Your task to perform on an android device: toggle data saver in the chrome app Image 0: 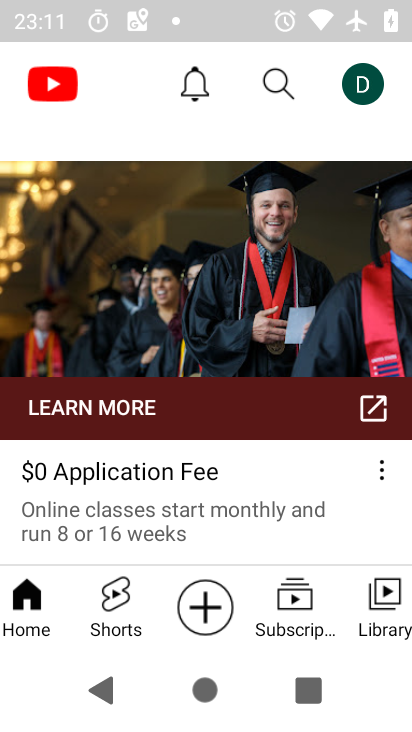
Step 0: press home button
Your task to perform on an android device: toggle data saver in the chrome app Image 1: 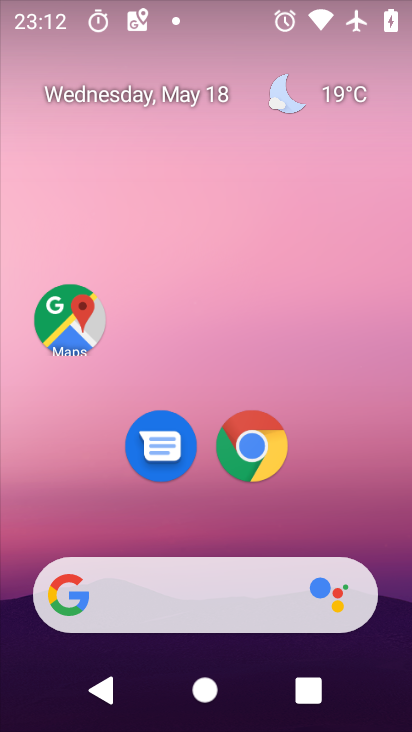
Step 1: click (269, 461)
Your task to perform on an android device: toggle data saver in the chrome app Image 2: 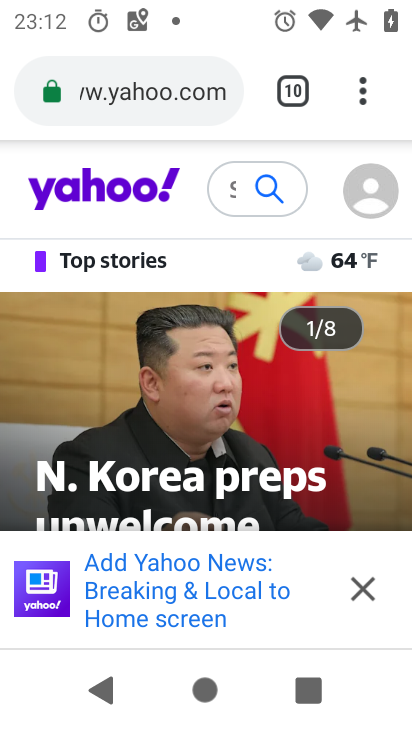
Step 2: click (361, 96)
Your task to perform on an android device: toggle data saver in the chrome app Image 3: 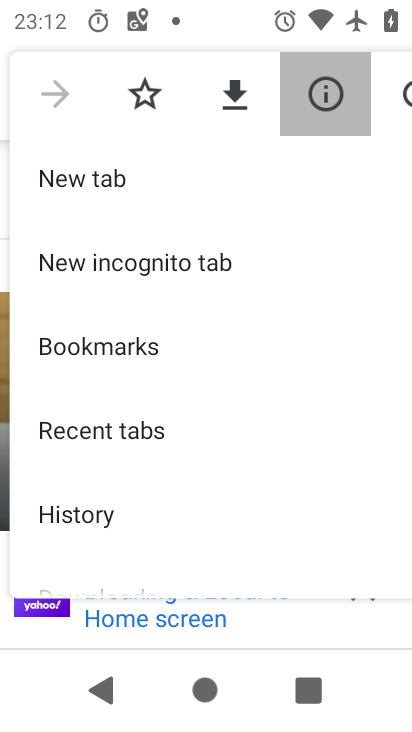
Step 3: click (362, 101)
Your task to perform on an android device: toggle data saver in the chrome app Image 4: 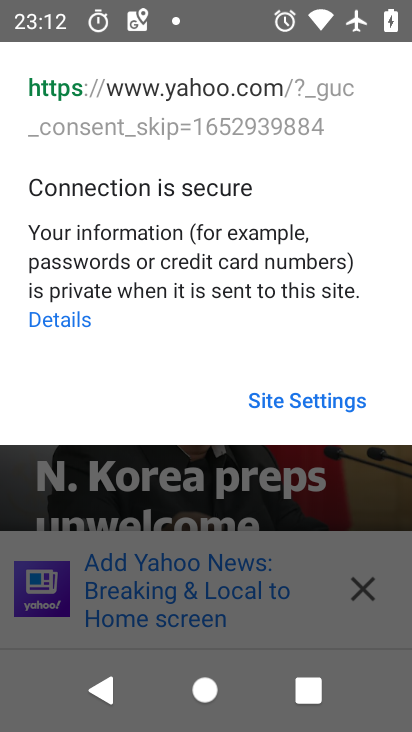
Step 4: click (307, 562)
Your task to perform on an android device: toggle data saver in the chrome app Image 5: 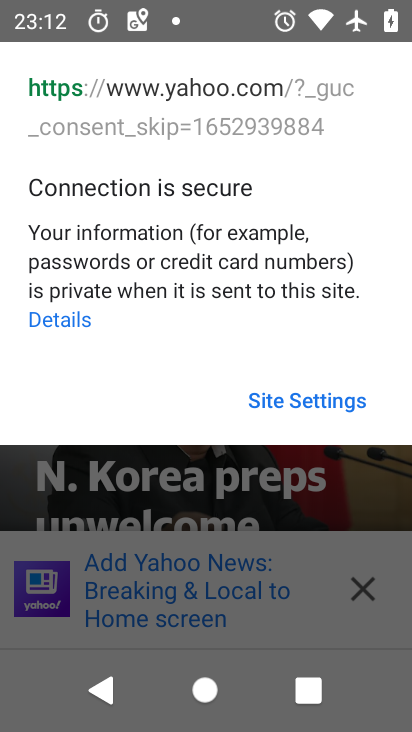
Step 5: drag from (269, 438) to (369, 122)
Your task to perform on an android device: toggle data saver in the chrome app Image 6: 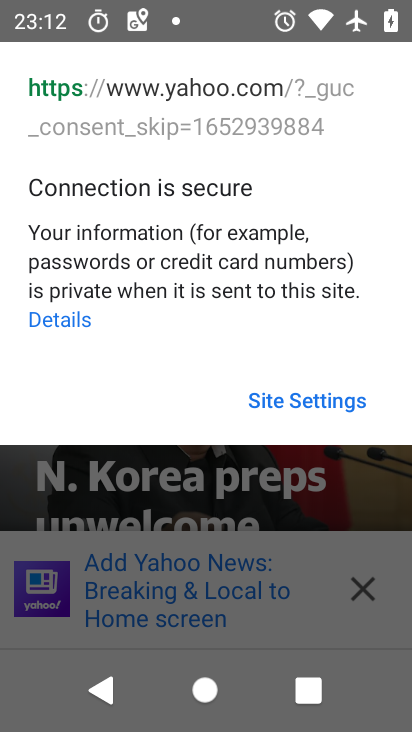
Step 6: press back button
Your task to perform on an android device: toggle data saver in the chrome app Image 7: 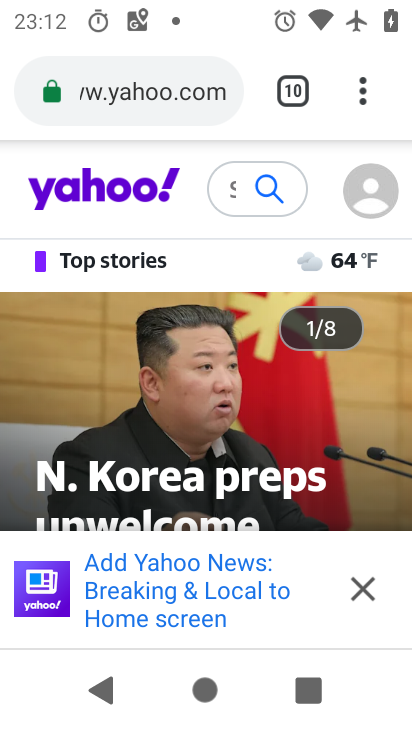
Step 7: drag from (369, 100) to (241, 476)
Your task to perform on an android device: toggle data saver in the chrome app Image 8: 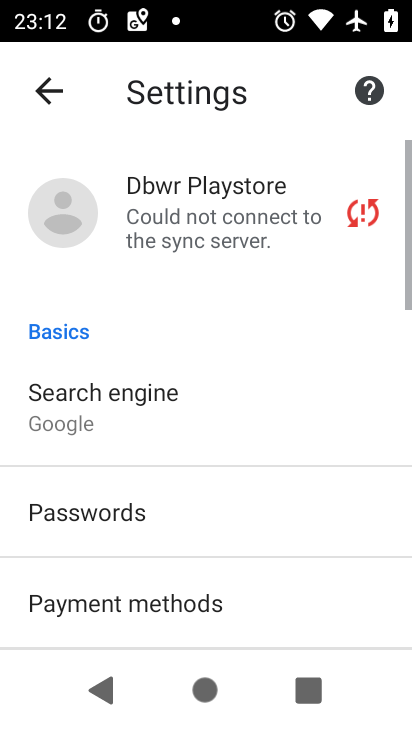
Step 8: drag from (179, 575) to (365, 98)
Your task to perform on an android device: toggle data saver in the chrome app Image 9: 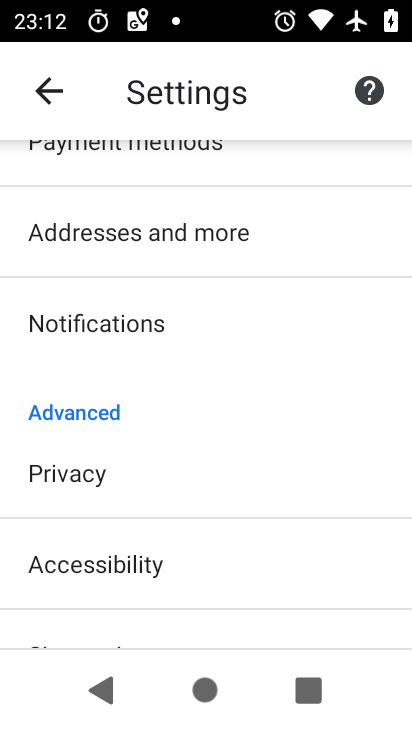
Step 9: drag from (221, 576) to (365, 133)
Your task to perform on an android device: toggle data saver in the chrome app Image 10: 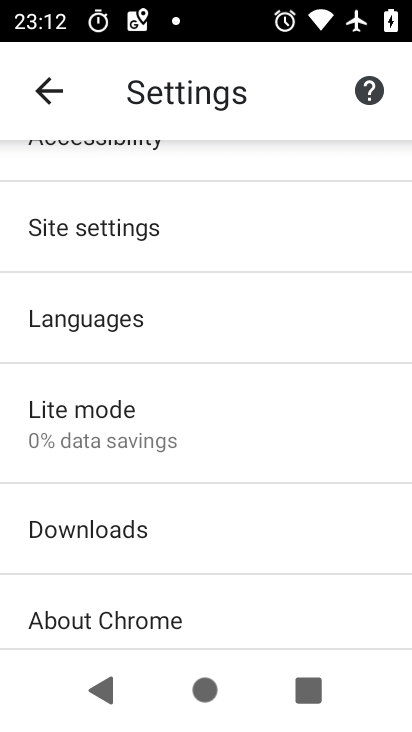
Step 10: click (129, 424)
Your task to perform on an android device: toggle data saver in the chrome app Image 11: 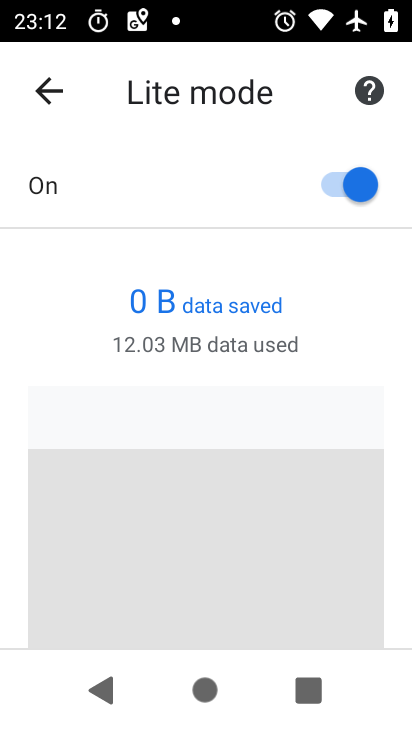
Step 11: click (336, 182)
Your task to perform on an android device: toggle data saver in the chrome app Image 12: 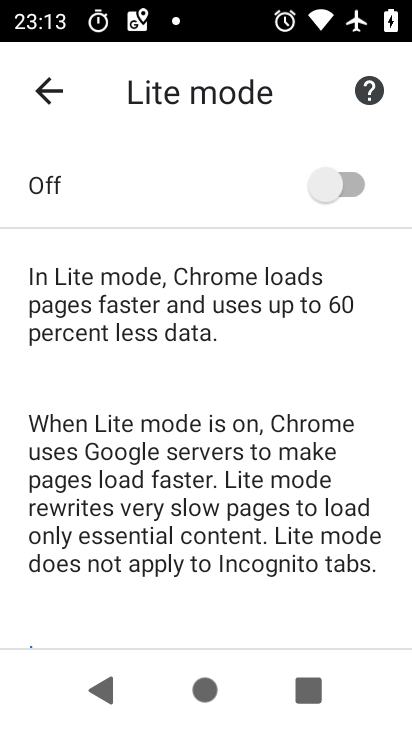
Step 12: task complete